Your task to perform on an android device: Open Chrome and go to the settings page Image 0: 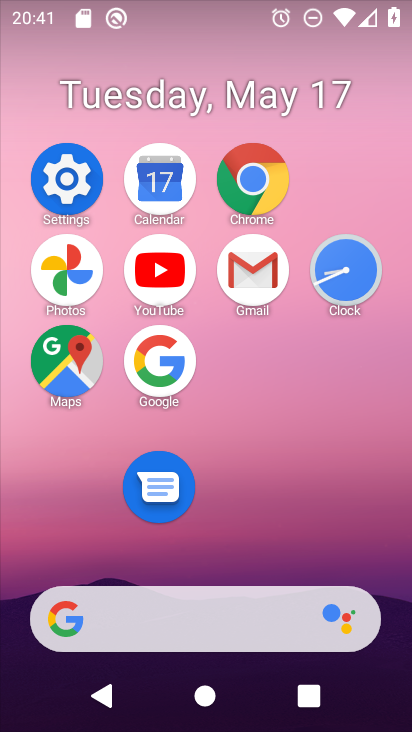
Step 0: click (246, 192)
Your task to perform on an android device: Open Chrome and go to the settings page Image 1: 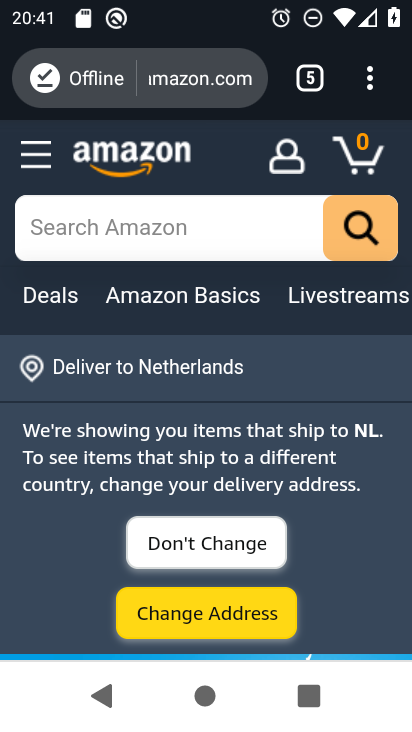
Step 1: click (376, 73)
Your task to perform on an android device: Open Chrome and go to the settings page Image 2: 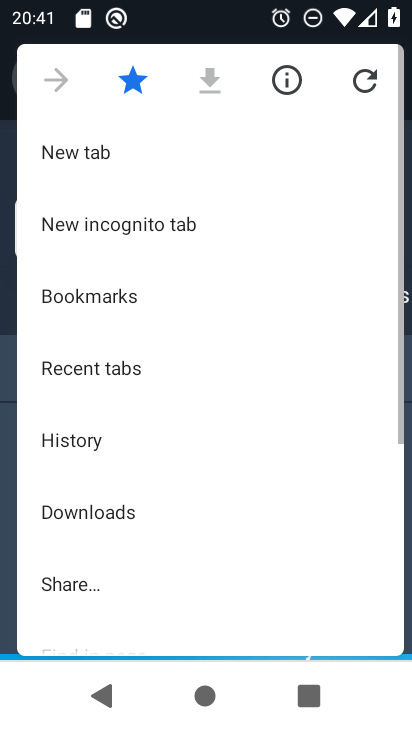
Step 2: drag from (213, 493) to (238, 177)
Your task to perform on an android device: Open Chrome and go to the settings page Image 3: 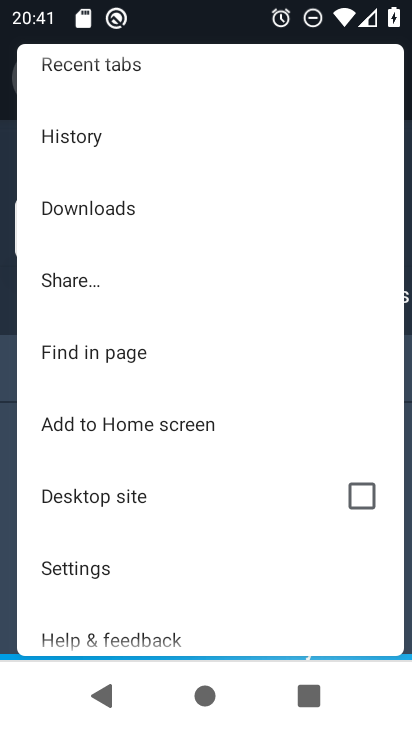
Step 3: click (108, 560)
Your task to perform on an android device: Open Chrome and go to the settings page Image 4: 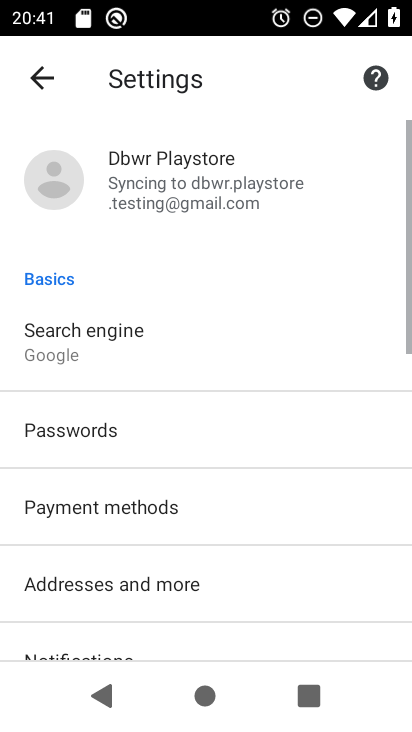
Step 4: task complete